Your task to perform on an android device: Open calendar and show me the fourth week of next month Image 0: 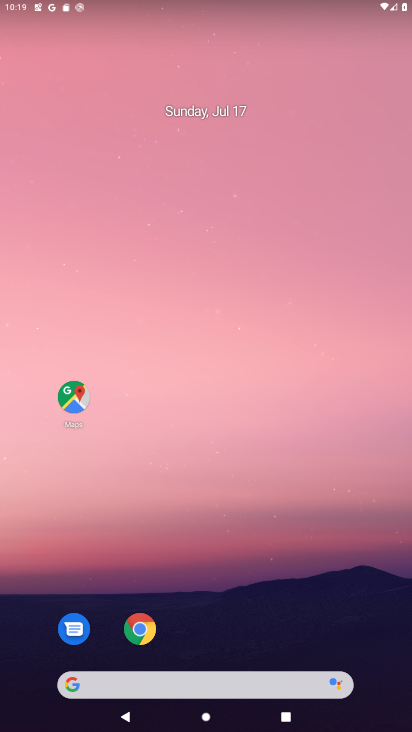
Step 0: drag from (190, 684) to (223, 269)
Your task to perform on an android device: Open calendar and show me the fourth week of next month Image 1: 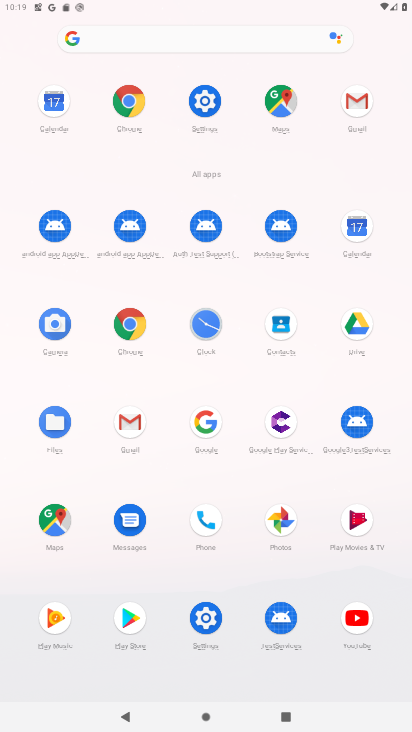
Step 1: click (357, 223)
Your task to perform on an android device: Open calendar and show me the fourth week of next month Image 2: 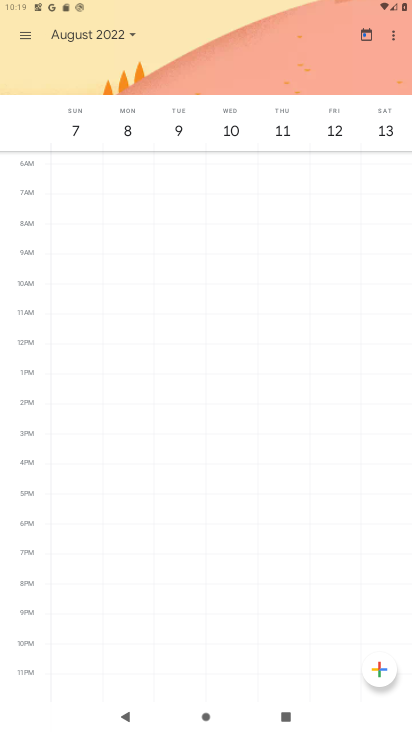
Step 2: click (367, 37)
Your task to perform on an android device: Open calendar and show me the fourth week of next month Image 3: 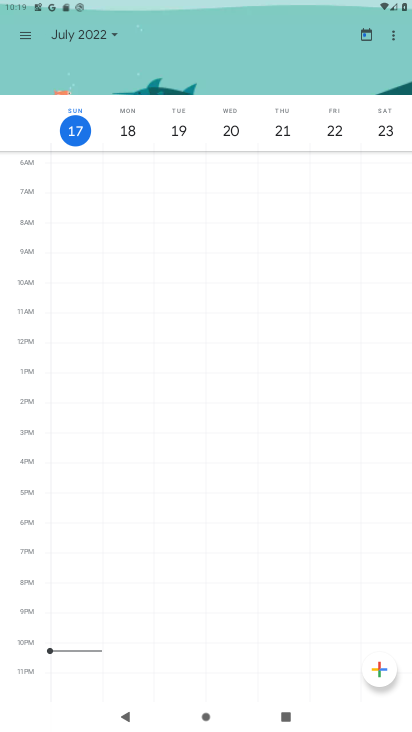
Step 3: click (112, 32)
Your task to perform on an android device: Open calendar and show me the fourth week of next month Image 4: 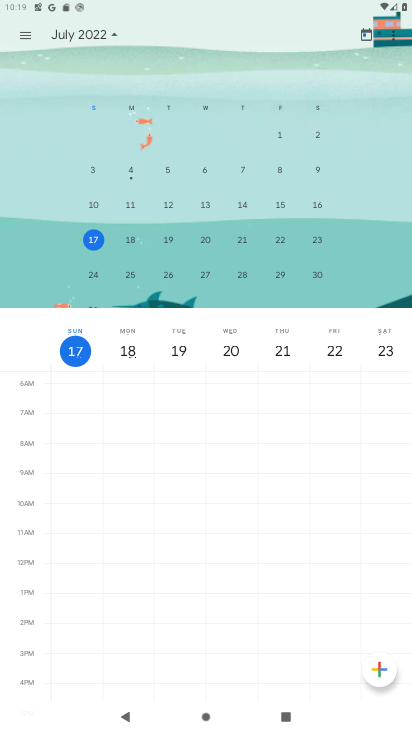
Step 4: drag from (357, 228) to (9, 249)
Your task to perform on an android device: Open calendar and show me the fourth week of next month Image 5: 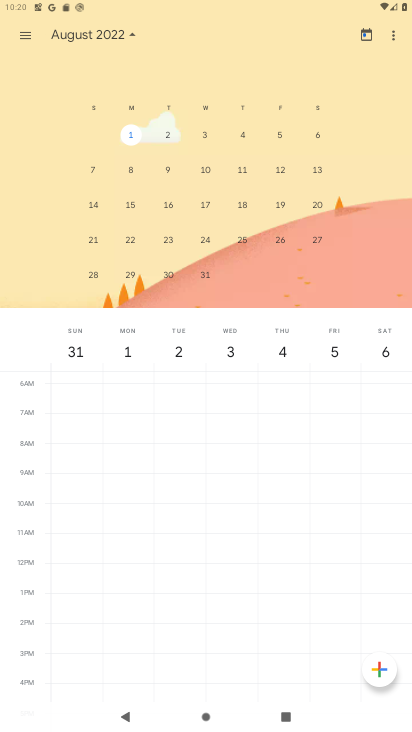
Step 5: click (136, 233)
Your task to perform on an android device: Open calendar and show me the fourth week of next month Image 6: 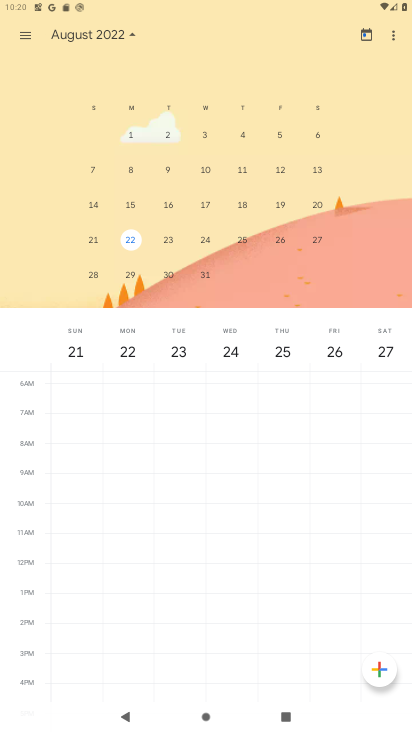
Step 6: click (22, 33)
Your task to perform on an android device: Open calendar and show me the fourth week of next month Image 7: 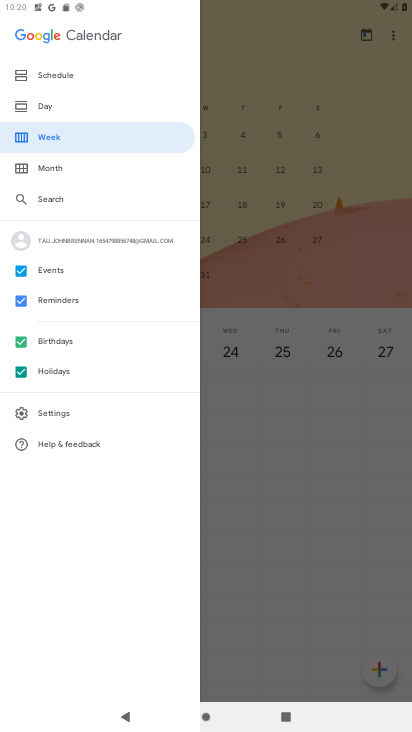
Step 7: click (81, 135)
Your task to perform on an android device: Open calendar and show me the fourth week of next month Image 8: 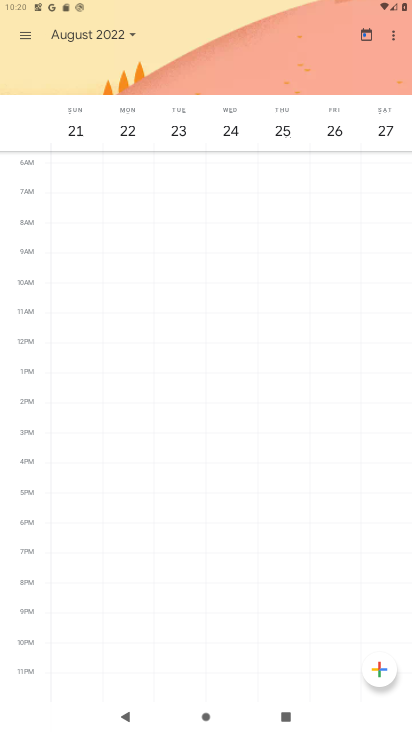
Step 8: task complete